Your task to perform on an android device: Play the last video I watched on Youtube Image 0: 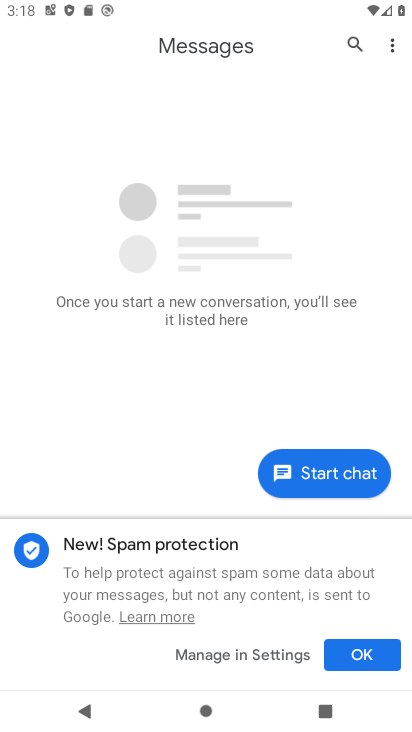
Step 0: press home button
Your task to perform on an android device: Play the last video I watched on Youtube Image 1: 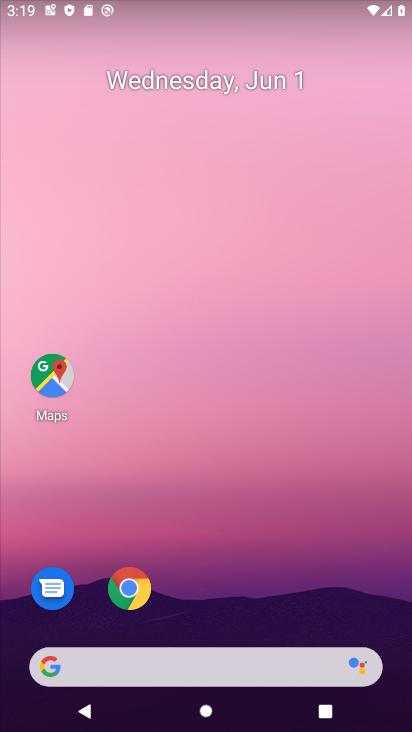
Step 1: drag from (377, 617) to (378, 141)
Your task to perform on an android device: Play the last video I watched on Youtube Image 2: 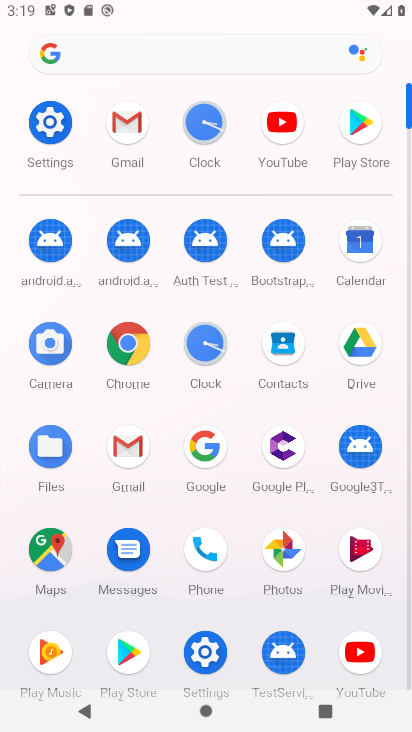
Step 2: click (291, 127)
Your task to perform on an android device: Play the last video I watched on Youtube Image 3: 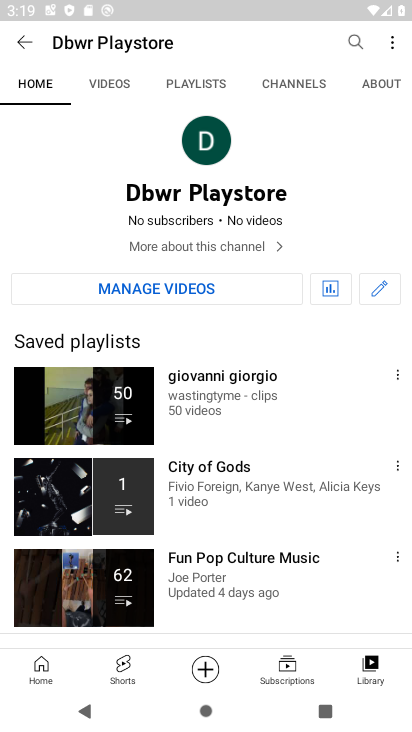
Step 3: click (370, 675)
Your task to perform on an android device: Play the last video I watched on Youtube Image 4: 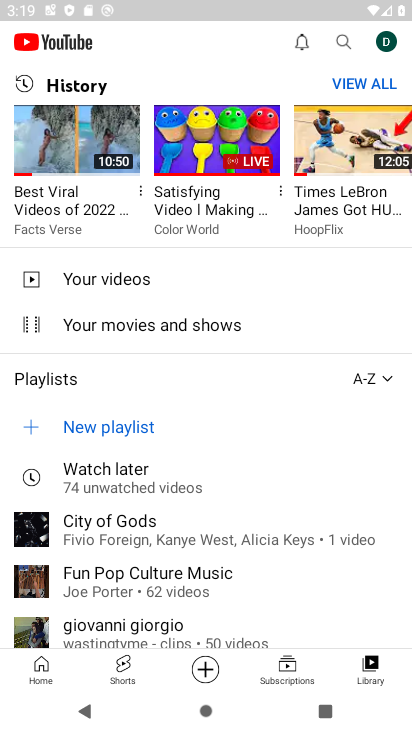
Step 4: click (104, 178)
Your task to perform on an android device: Play the last video I watched on Youtube Image 5: 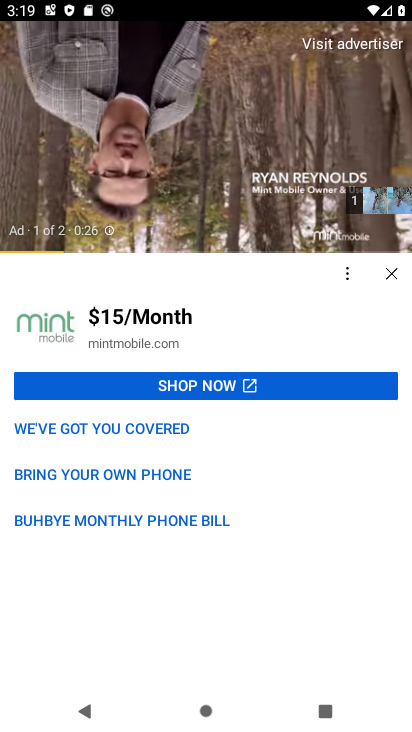
Step 5: task complete